Your task to perform on an android device: change notification settings in the gmail app Image 0: 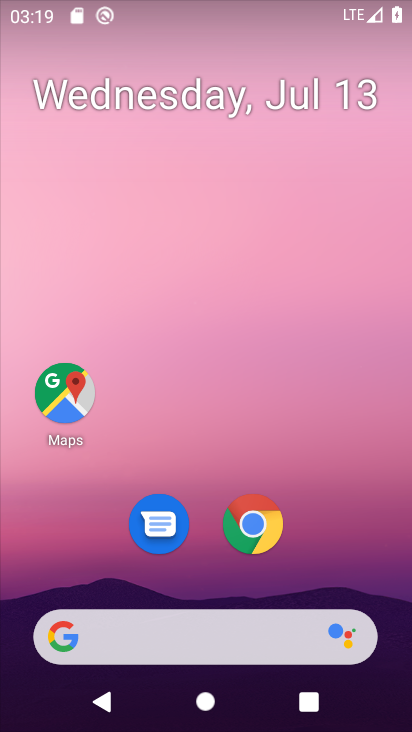
Step 0: drag from (349, 553) to (279, 34)
Your task to perform on an android device: change notification settings in the gmail app Image 1: 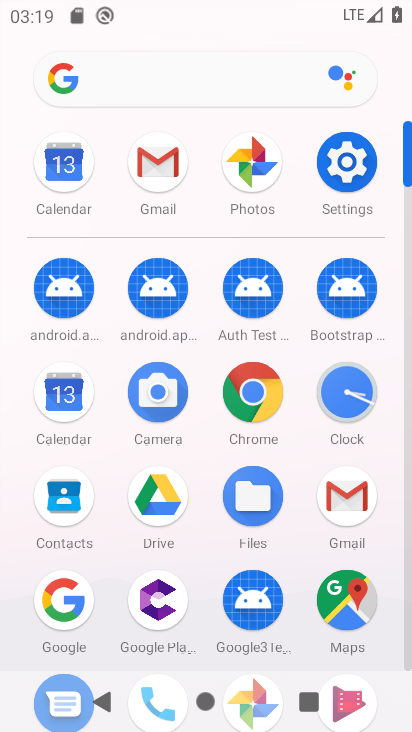
Step 1: click (159, 173)
Your task to perform on an android device: change notification settings in the gmail app Image 2: 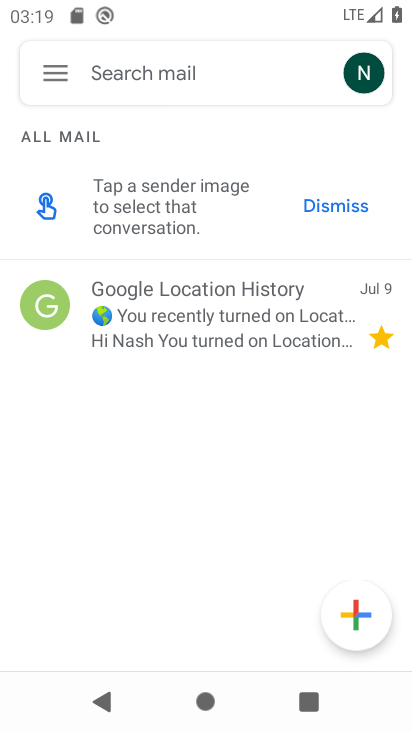
Step 2: click (48, 73)
Your task to perform on an android device: change notification settings in the gmail app Image 3: 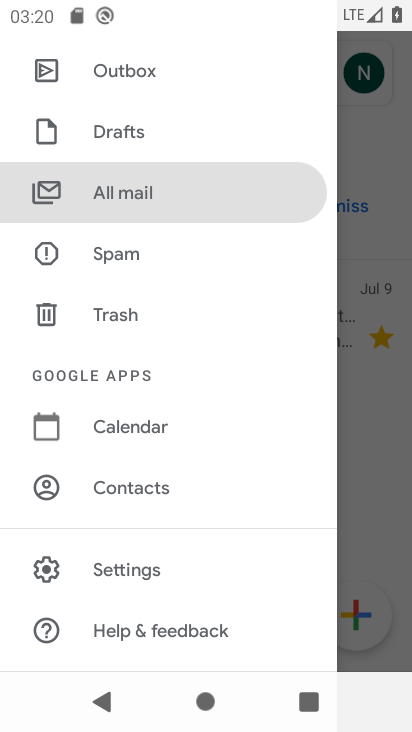
Step 3: click (124, 562)
Your task to perform on an android device: change notification settings in the gmail app Image 4: 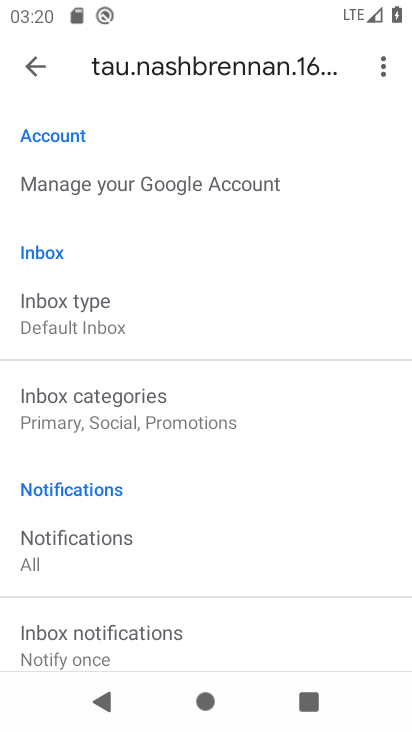
Step 4: drag from (164, 576) to (185, 235)
Your task to perform on an android device: change notification settings in the gmail app Image 5: 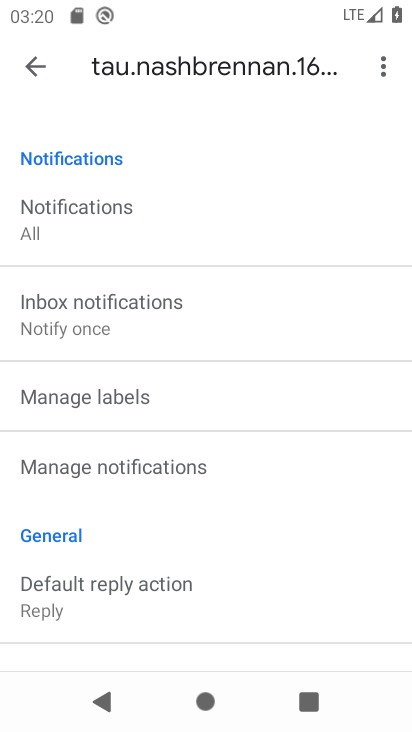
Step 5: click (174, 475)
Your task to perform on an android device: change notification settings in the gmail app Image 6: 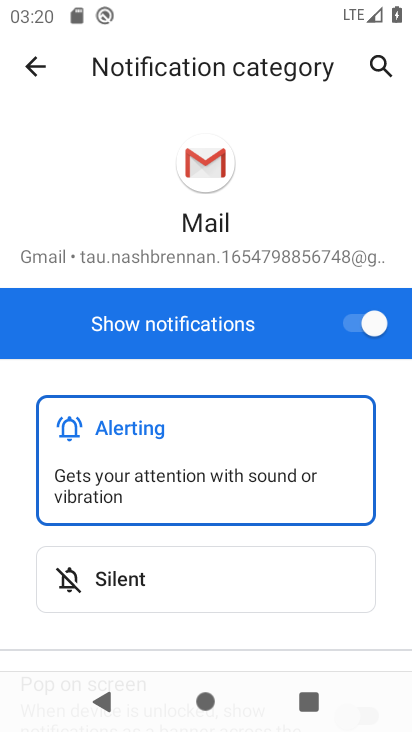
Step 6: click (360, 323)
Your task to perform on an android device: change notification settings in the gmail app Image 7: 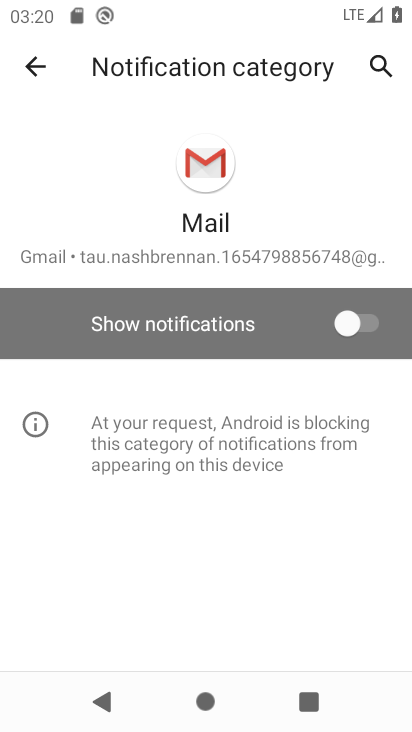
Step 7: task complete